Your task to perform on an android device: Open sound settings Image 0: 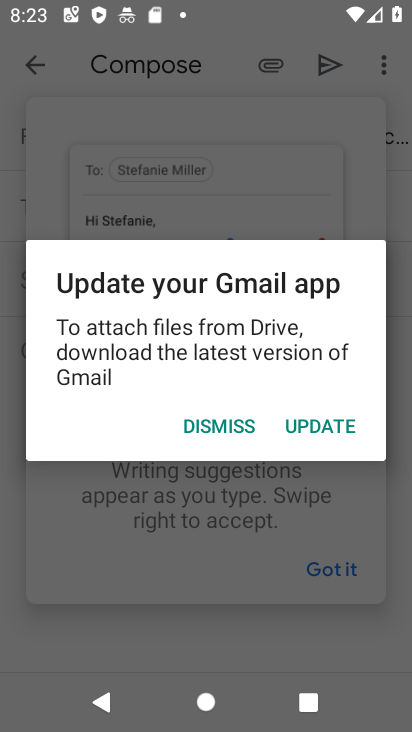
Step 0: press home button
Your task to perform on an android device: Open sound settings Image 1: 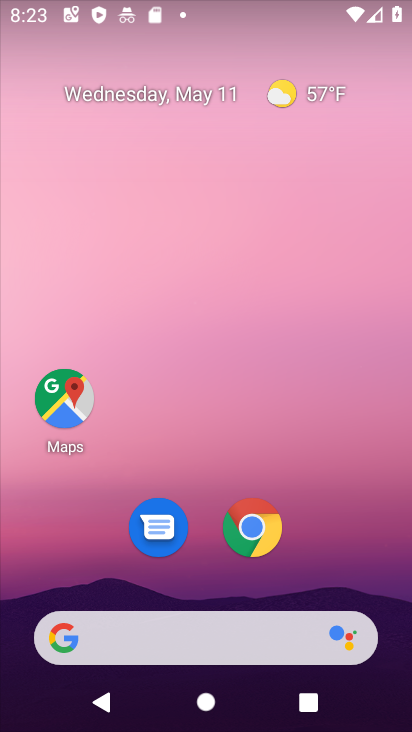
Step 1: drag from (325, 506) to (270, 6)
Your task to perform on an android device: Open sound settings Image 2: 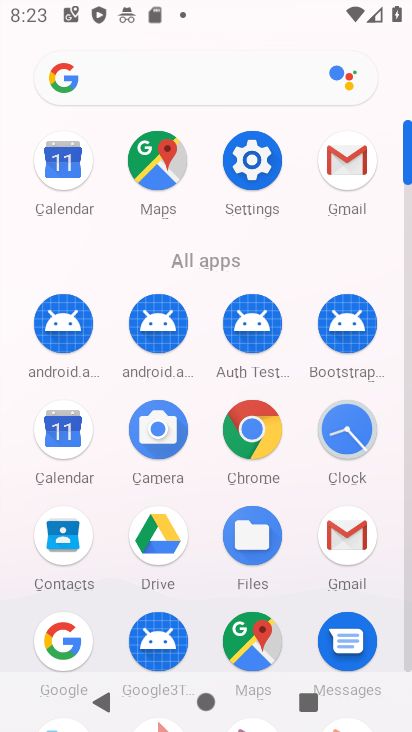
Step 2: click (252, 161)
Your task to perform on an android device: Open sound settings Image 3: 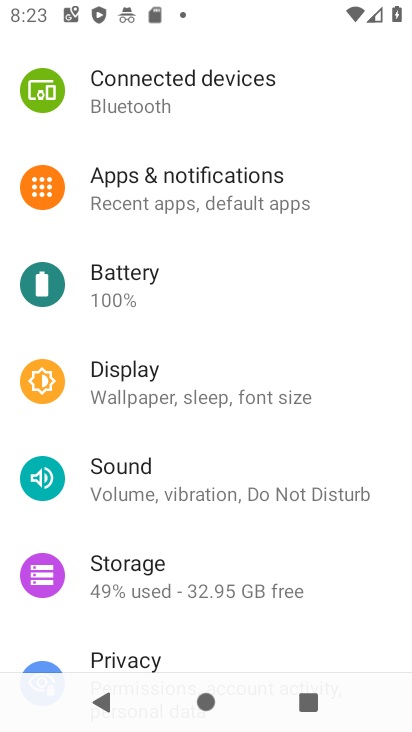
Step 3: click (142, 474)
Your task to perform on an android device: Open sound settings Image 4: 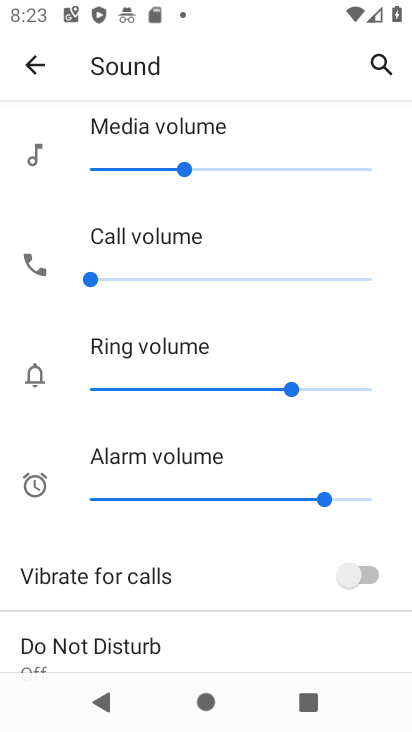
Step 4: task complete